Your task to perform on an android device: change the clock style Image 0: 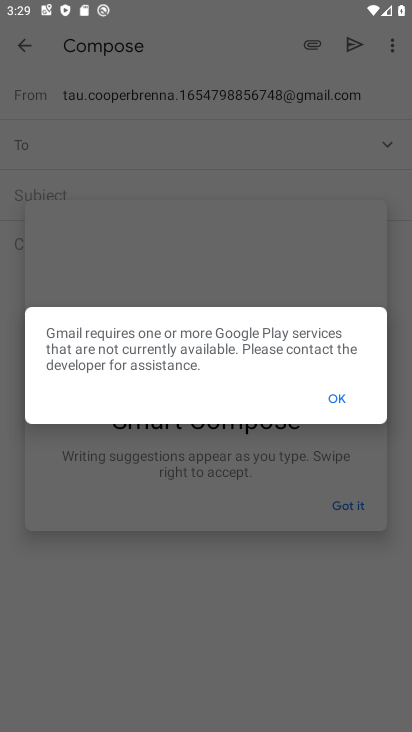
Step 0: press home button
Your task to perform on an android device: change the clock style Image 1: 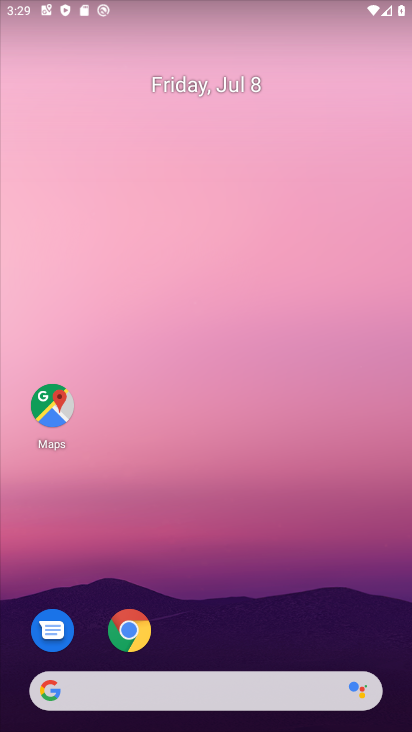
Step 1: drag from (283, 617) to (296, 95)
Your task to perform on an android device: change the clock style Image 2: 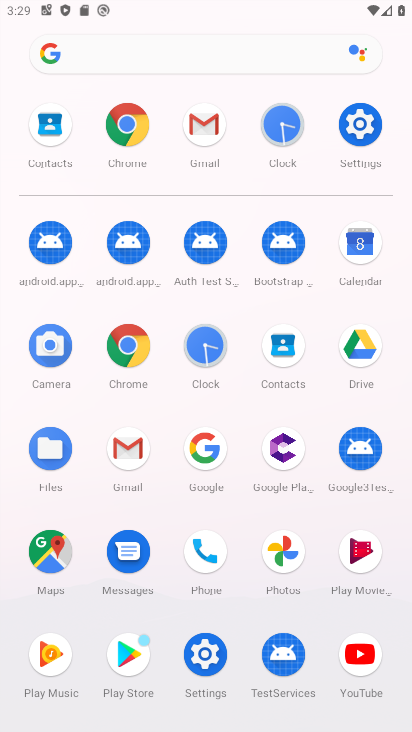
Step 2: click (213, 336)
Your task to perform on an android device: change the clock style Image 3: 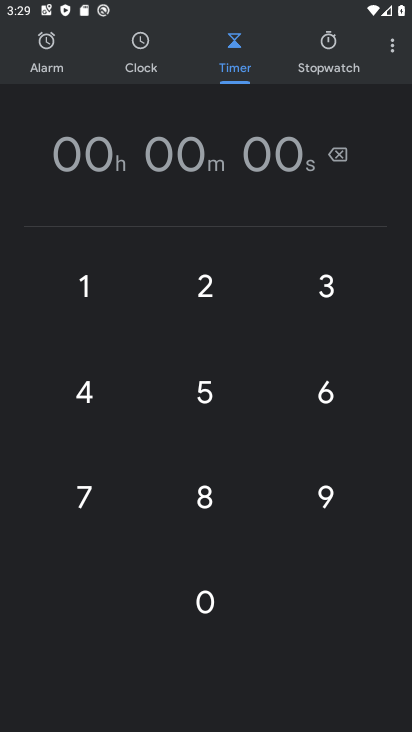
Step 3: click (387, 50)
Your task to perform on an android device: change the clock style Image 4: 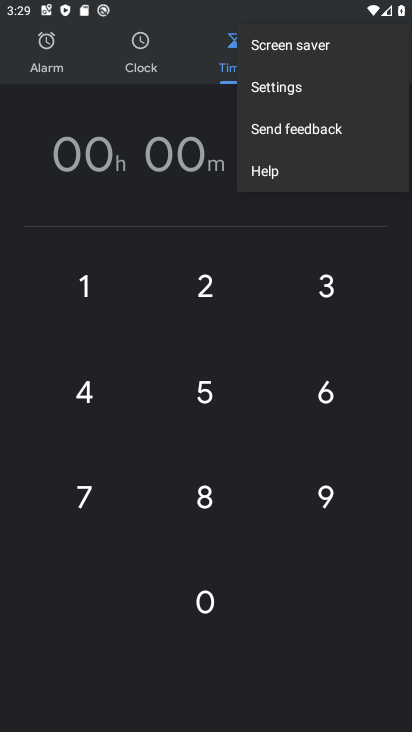
Step 4: click (328, 80)
Your task to perform on an android device: change the clock style Image 5: 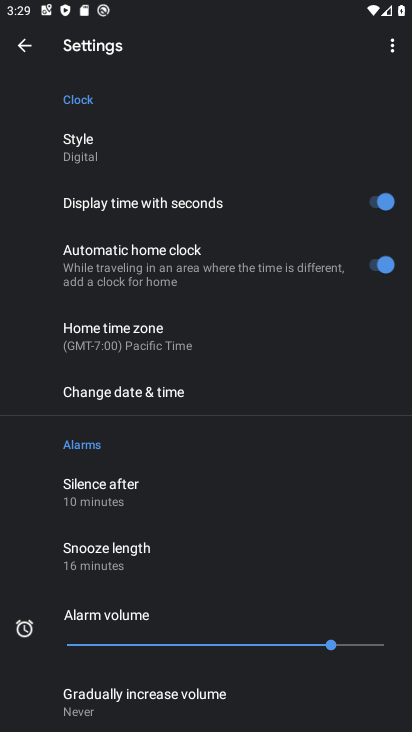
Step 5: click (136, 153)
Your task to perform on an android device: change the clock style Image 6: 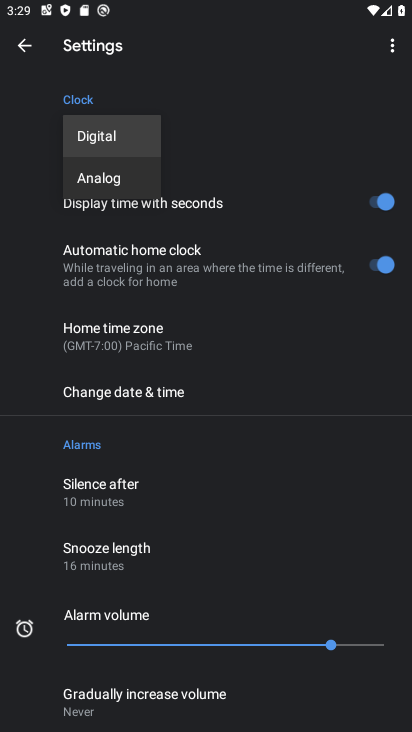
Step 6: click (134, 175)
Your task to perform on an android device: change the clock style Image 7: 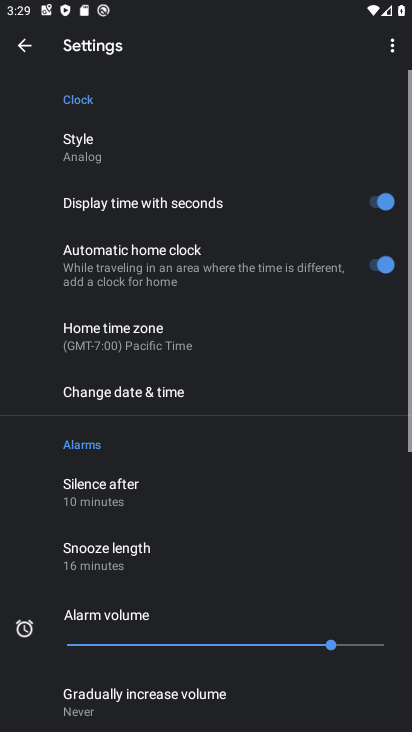
Step 7: task complete